Your task to perform on an android device: Go to eBay Image 0: 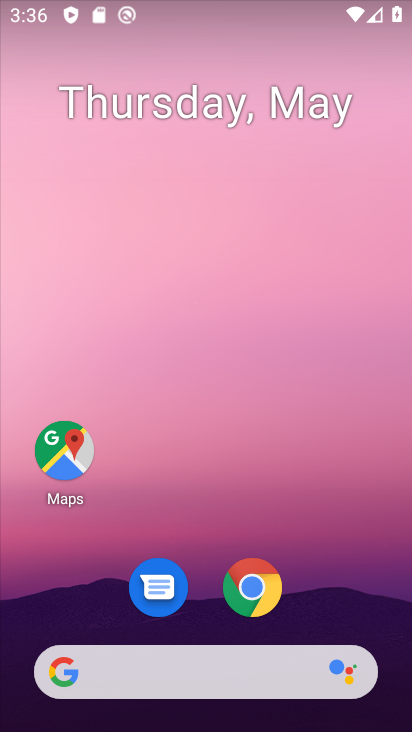
Step 0: click (374, 167)
Your task to perform on an android device: Go to eBay Image 1: 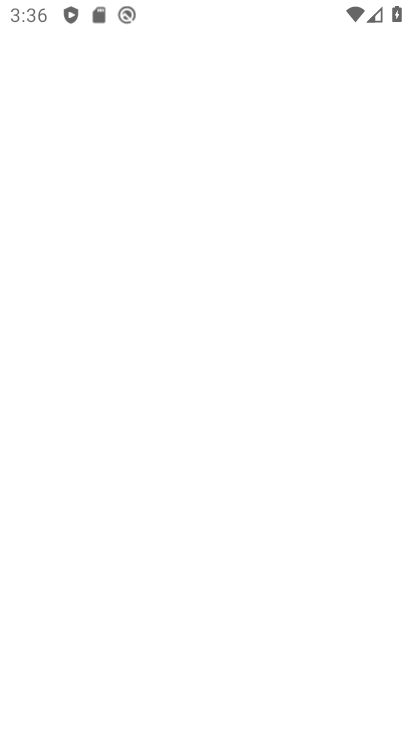
Step 1: press home button
Your task to perform on an android device: Go to eBay Image 2: 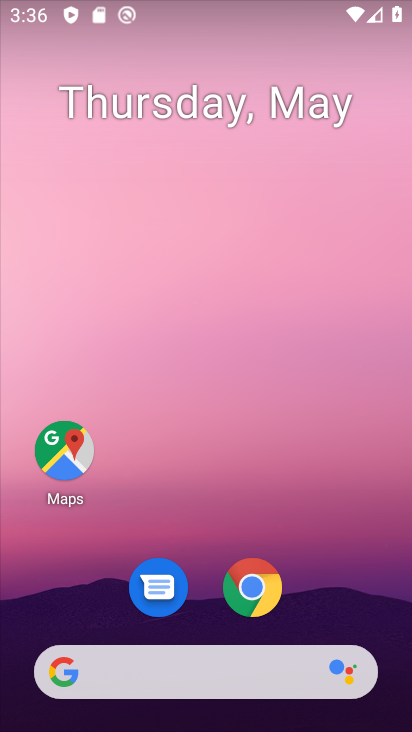
Step 2: drag from (372, 609) to (368, 151)
Your task to perform on an android device: Go to eBay Image 3: 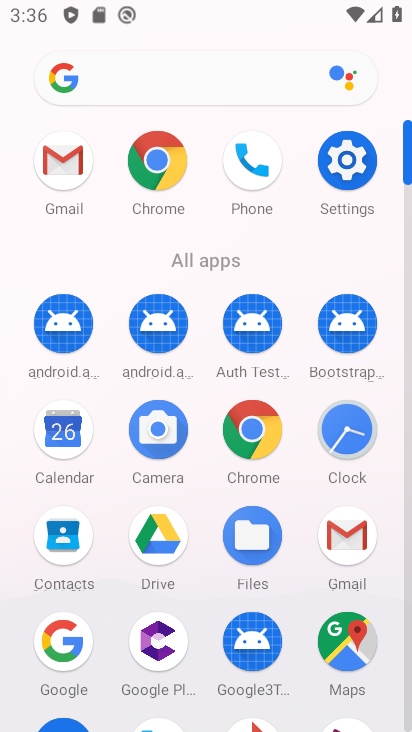
Step 3: click (253, 456)
Your task to perform on an android device: Go to eBay Image 4: 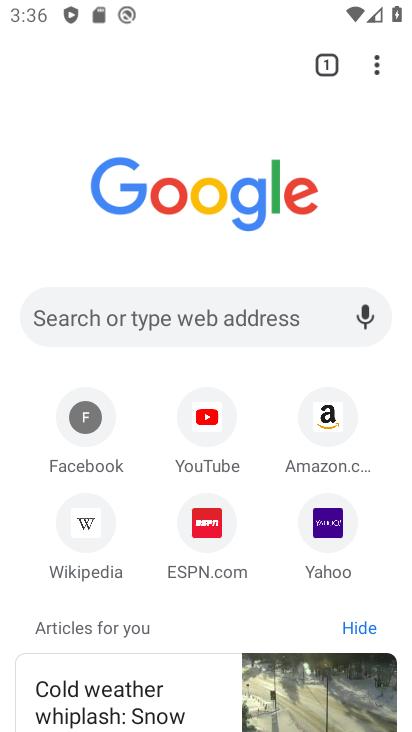
Step 4: click (288, 328)
Your task to perform on an android device: Go to eBay Image 5: 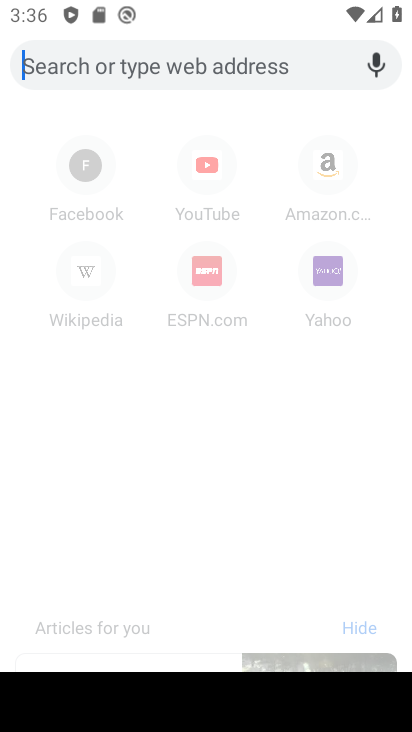
Step 5: type "ebay"
Your task to perform on an android device: Go to eBay Image 6: 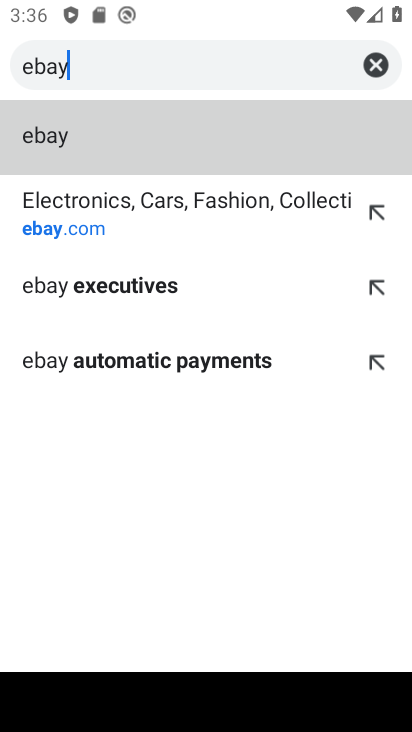
Step 6: click (169, 230)
Your task to perform on an android device: Go to eBay Image 7: 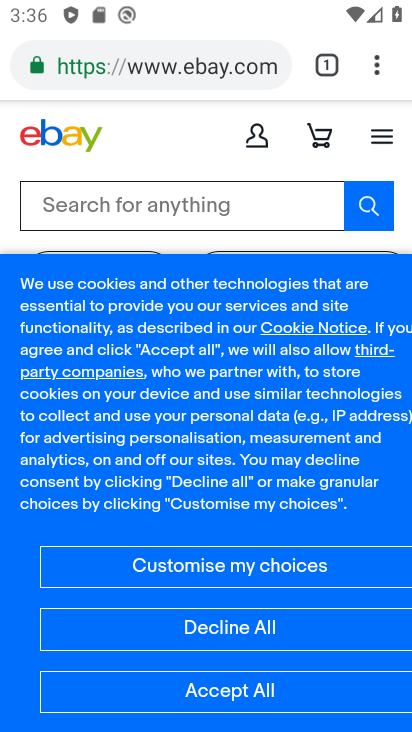
Step 7: task complete